Your task to perform on an android device: turn off location Image 0: 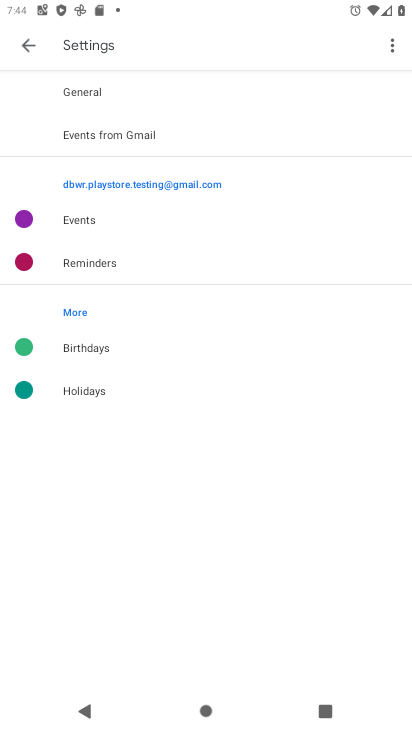
Step 0: press home button
Your task to perform on an android device: turn off location Image 1: 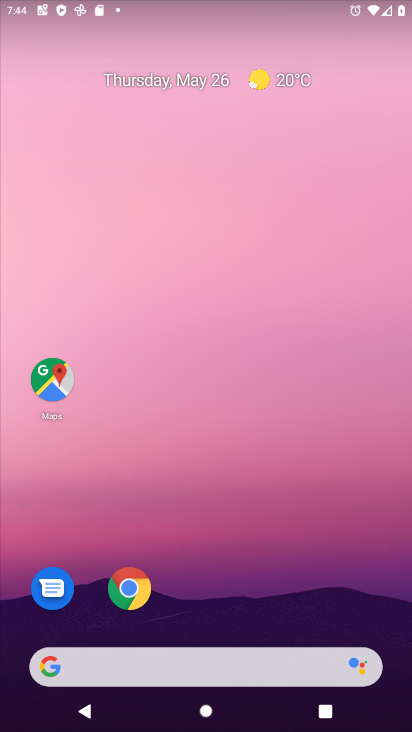
Step 1: drag from (375, 604) to (302, 94)
Your task to perform on an android device: turn off location Image 2: 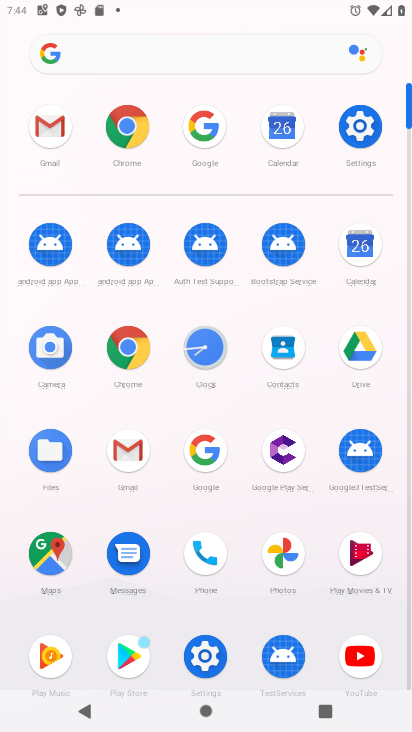
Step 2: click (359, 131)
Your task to perform on an android device: turn off location Image 3: 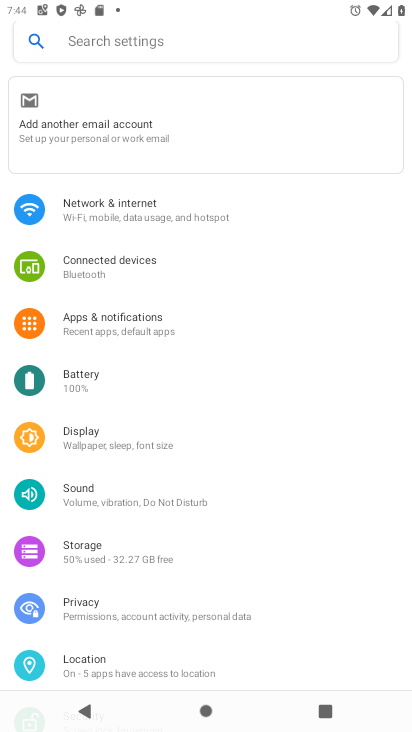
Step 3: click (102, 659)
Your task to perform on an android device: turn off location Image 4: 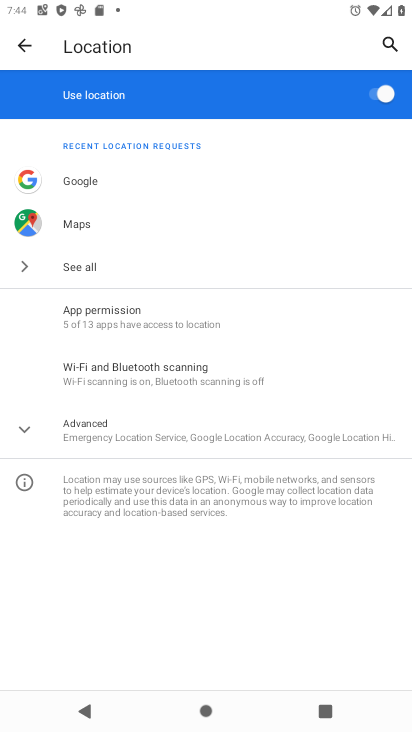
Step 4: click (158, 366)
Your task to perform on an android device: turn off location Image 5: 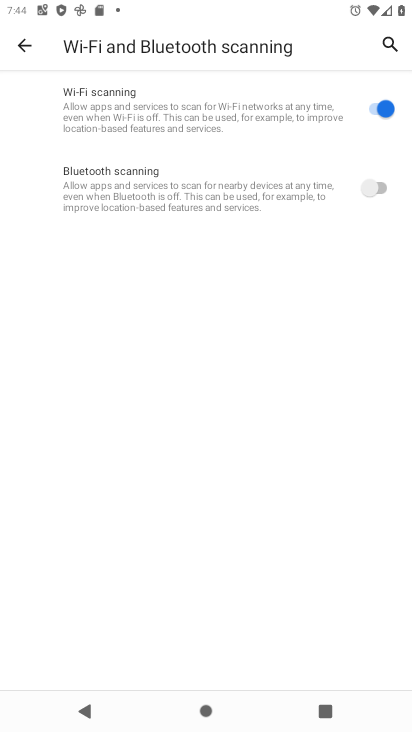
Step 5: press back button
Your task to perform on an android device: turn off location Image 6: 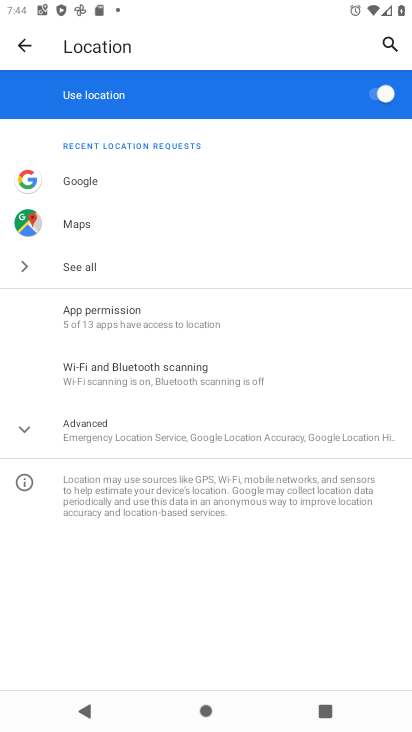
Step 6: click (379, 101)
Your task to perform on an android device: turn off location Image 7: 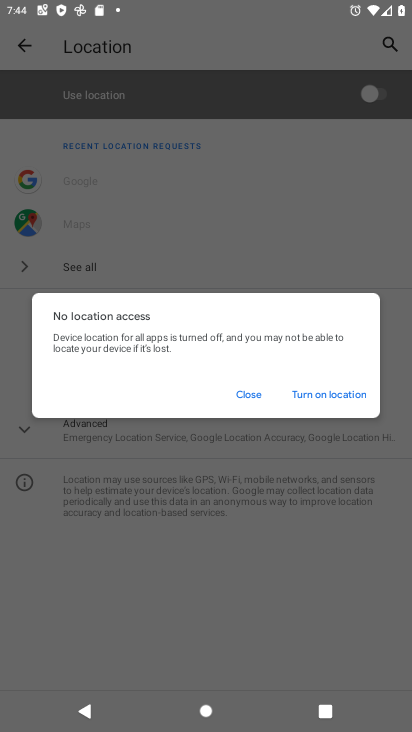
Step 7: task complete